Your task to perform on an android device: Open the map Image 0: 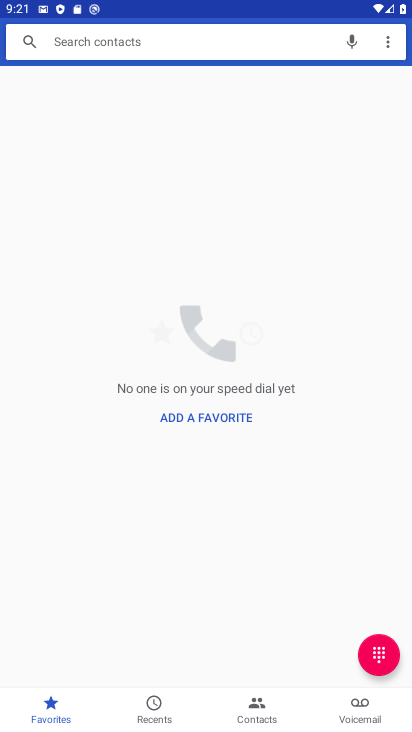
Step 0: press home button
Your task to perform on an android device: Open the map Image 1: 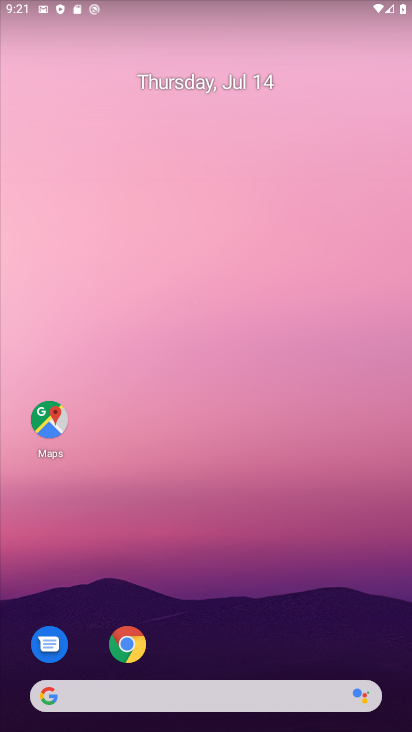
Step 1: click (51, 422)
Your task to perform on an android device: Open the map Image 2: 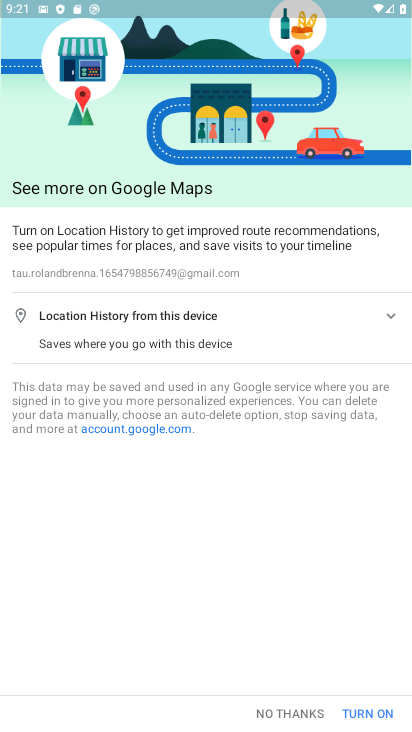
Step 2: click (368, 711)
Your task to perform on an android device: Open the map Image 3: 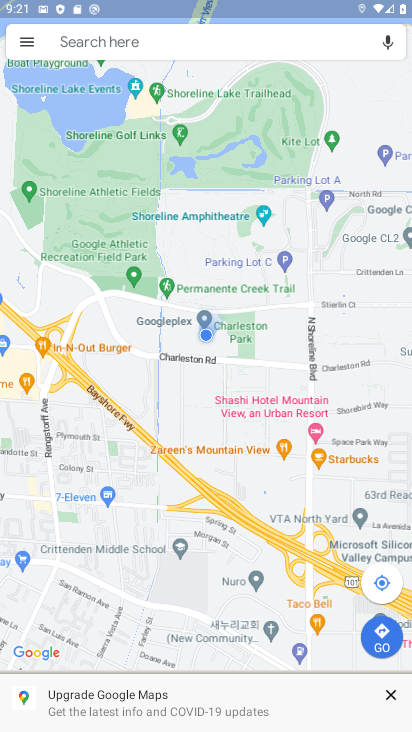
Step 3: task complete